Your task to perform on an android device: install app "Fetch Rewards" Image 0: 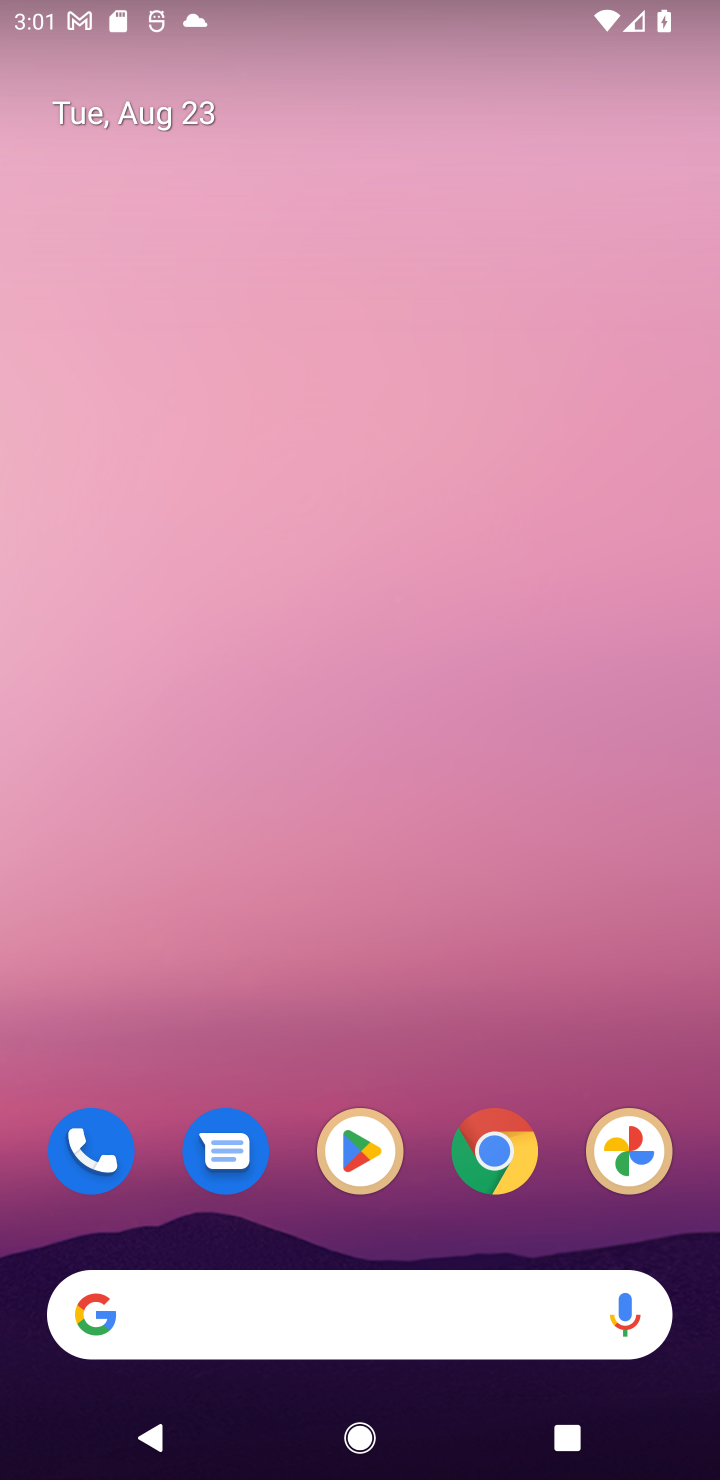
Step 0: click (362, 1149)
Your task to perform on an android device: install app "Fetch Rewards" Image 1: 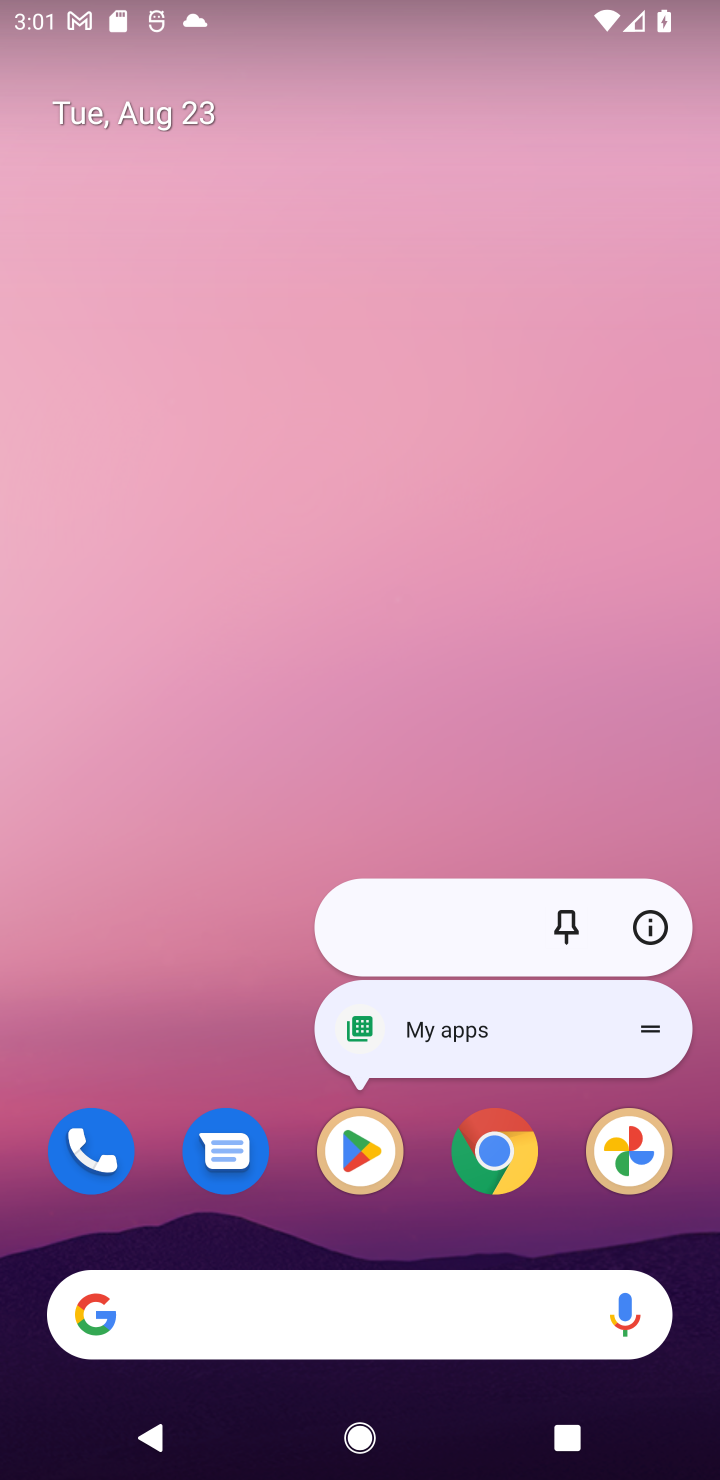
Step 1: click (362, 1149)
Your task to perform on an android device: install app "Fetch Rewards" Image 2: 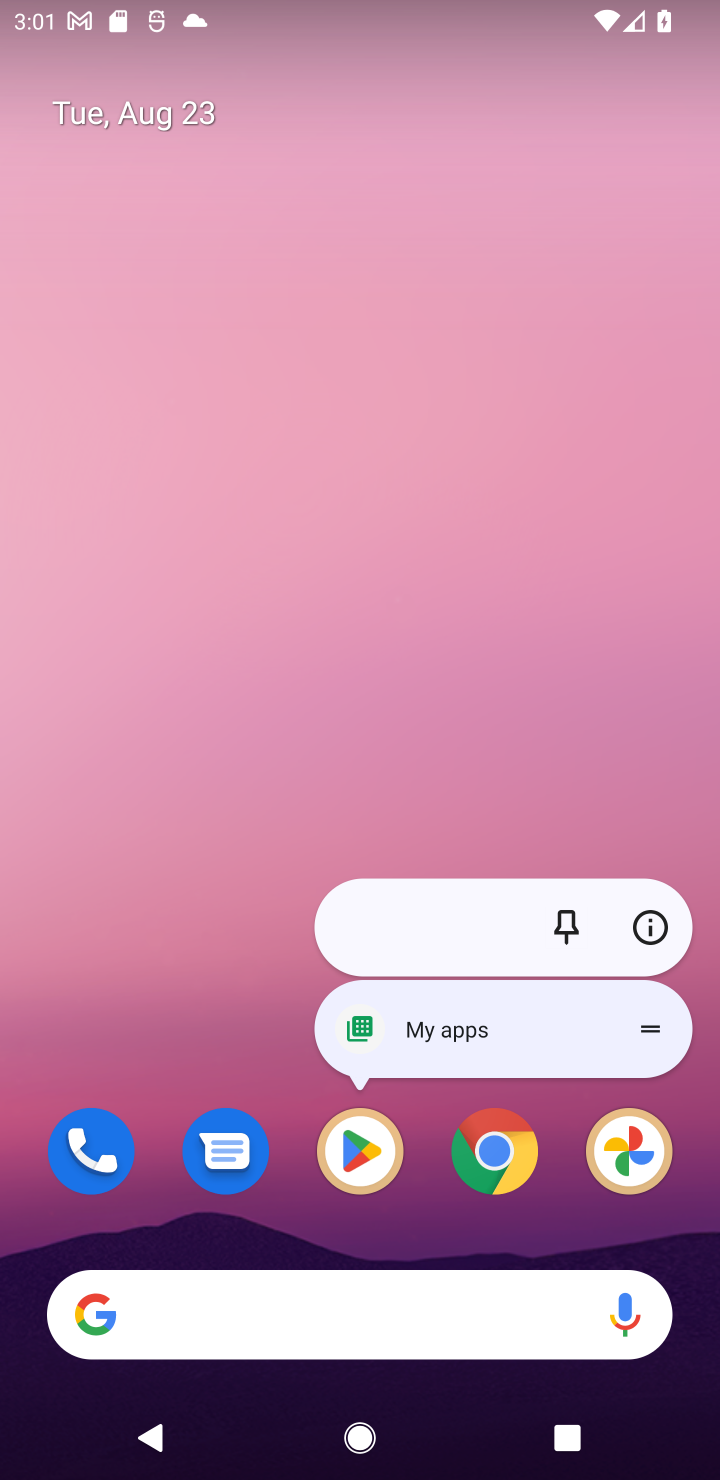
Step 2: click (362, 1149)
Your task to perform on an android device: install app "Fetch Rewards" Image 3: 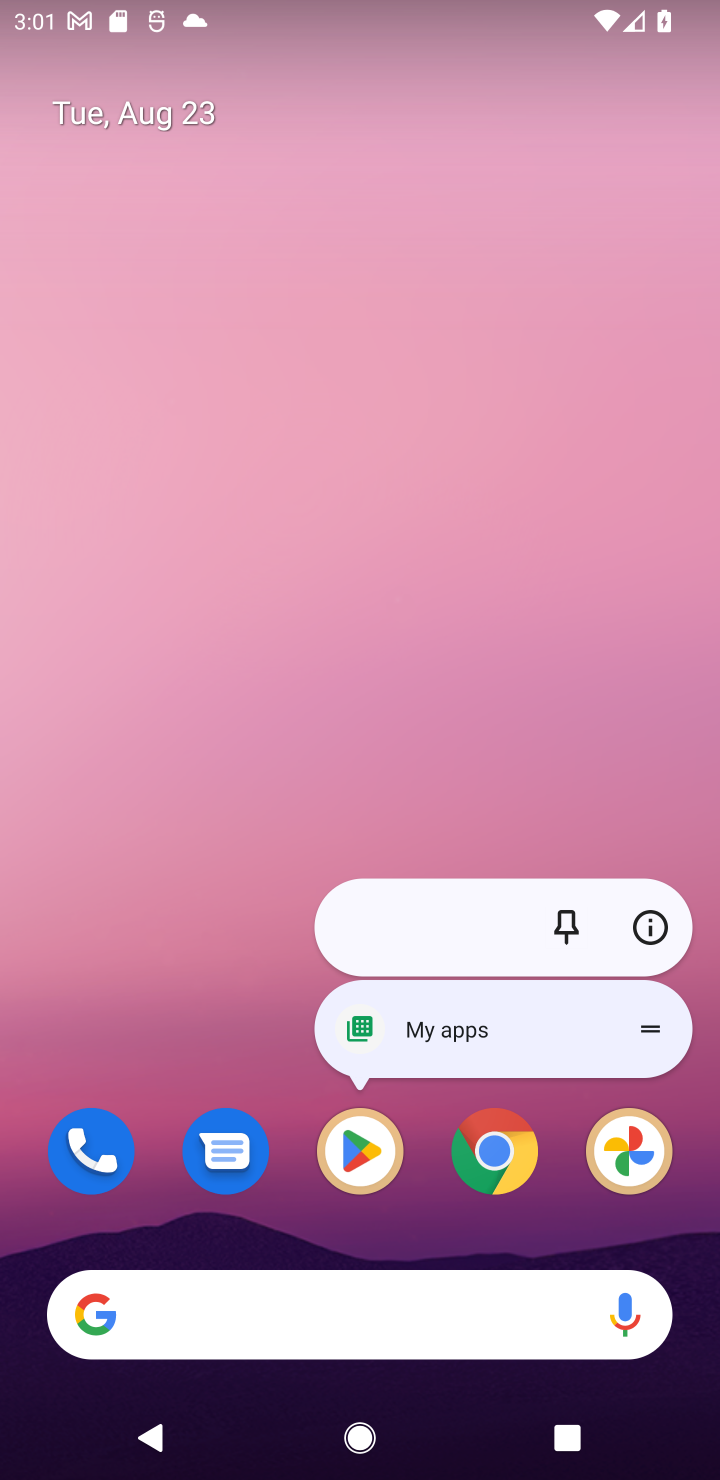
Step 3: click (362, 1153)
Your task to perform on an android device: install app "Fetch Rewards" Image 4: 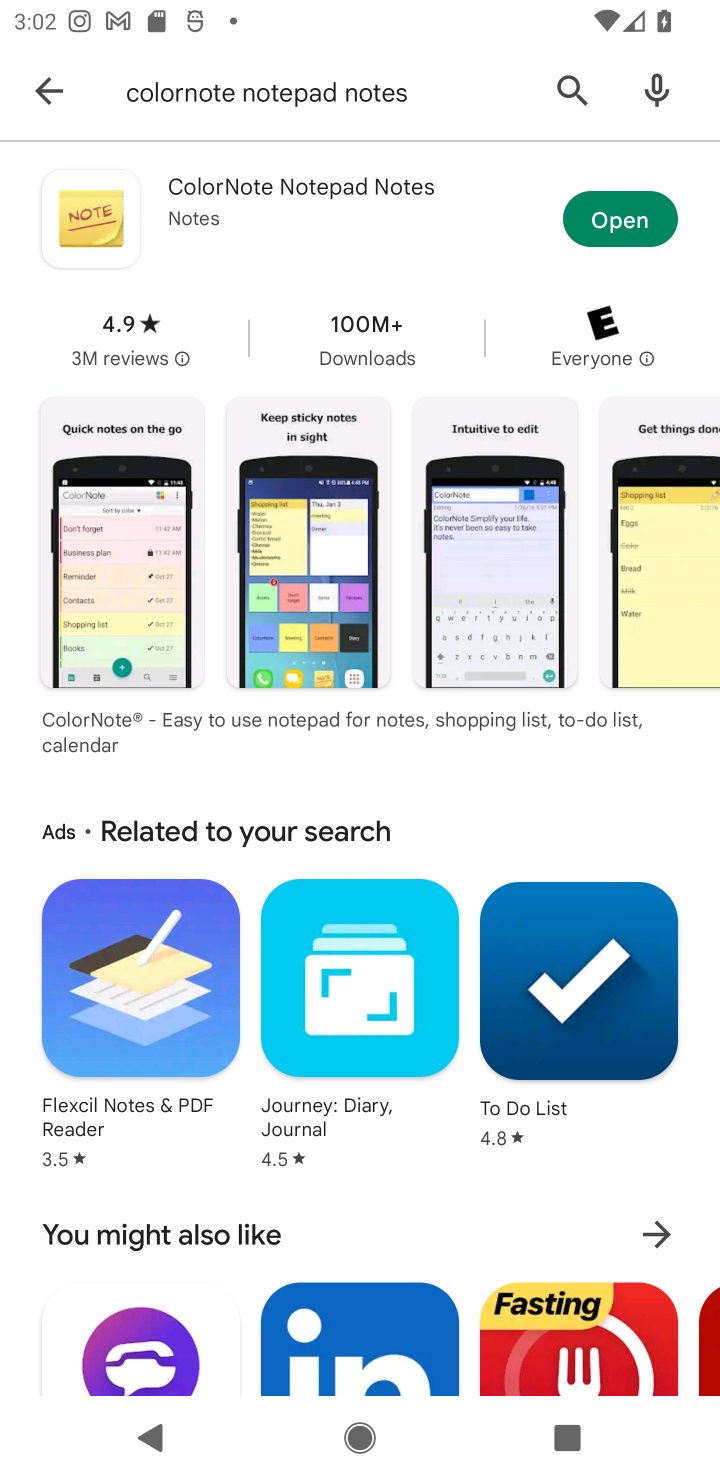
Step 4: click (566, 96)
Your task to perform on an android device: install app "Fetch Rewards" Image 5: 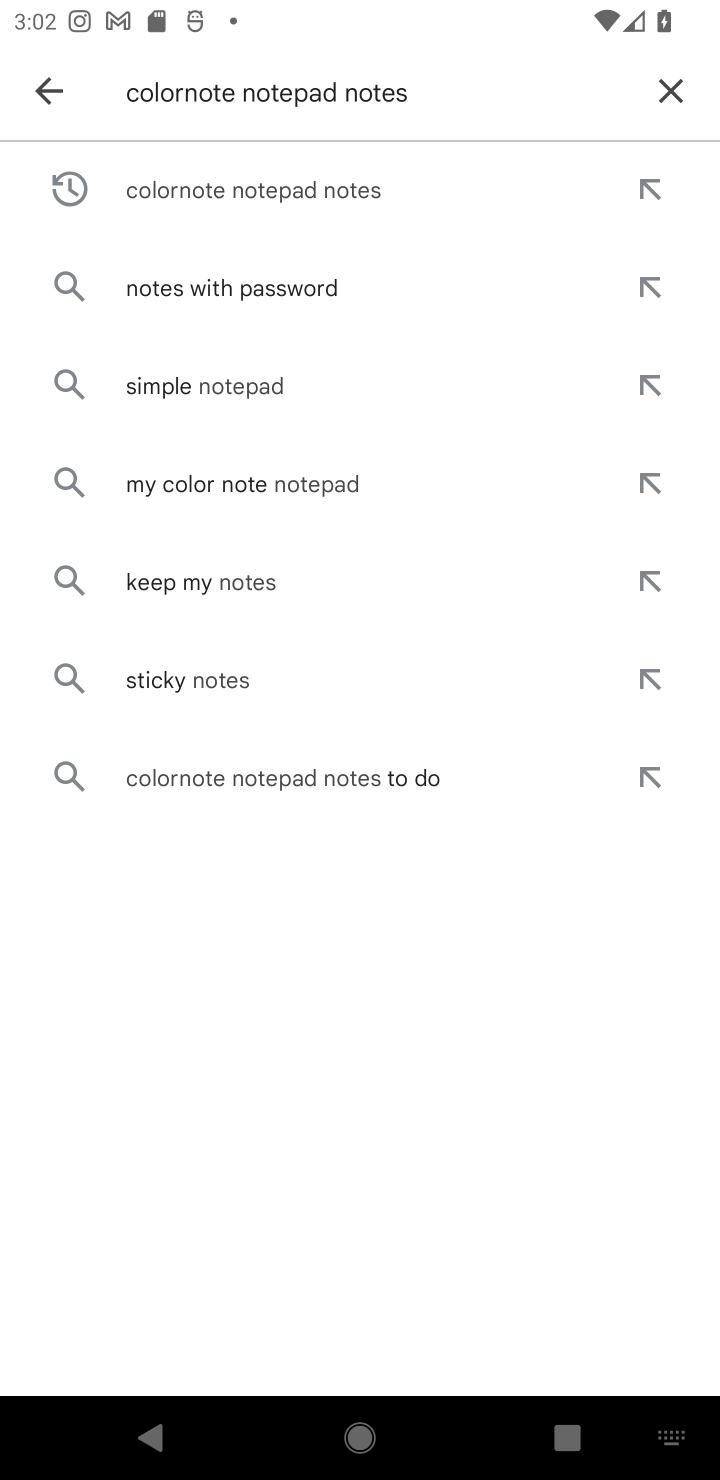
Step 5: click (672, 73)
Your task to perform on an android device: install app "Fetch Rewards" Image 6: 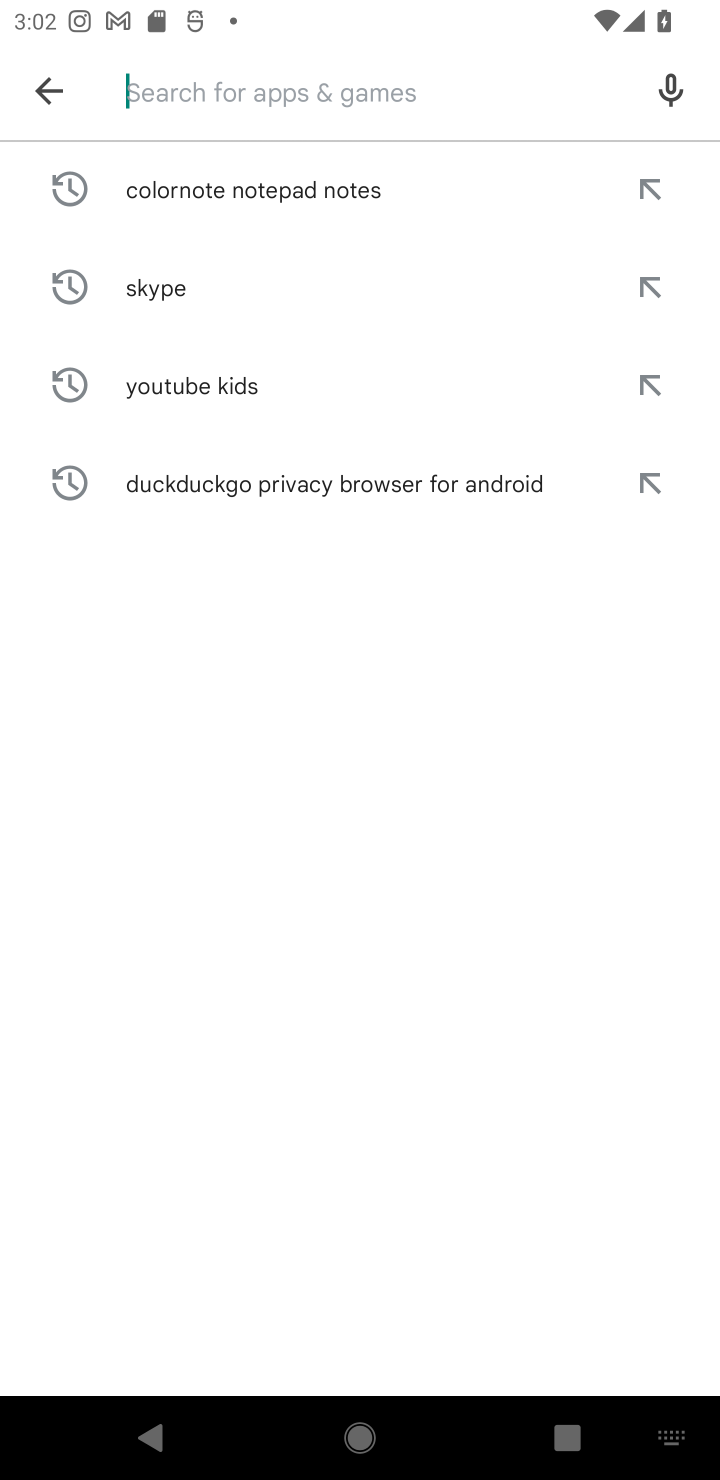
Step 6: type "Fetch Rewards"
Your task to perform on an android device: install app "Fetch Rewards" Image 7: 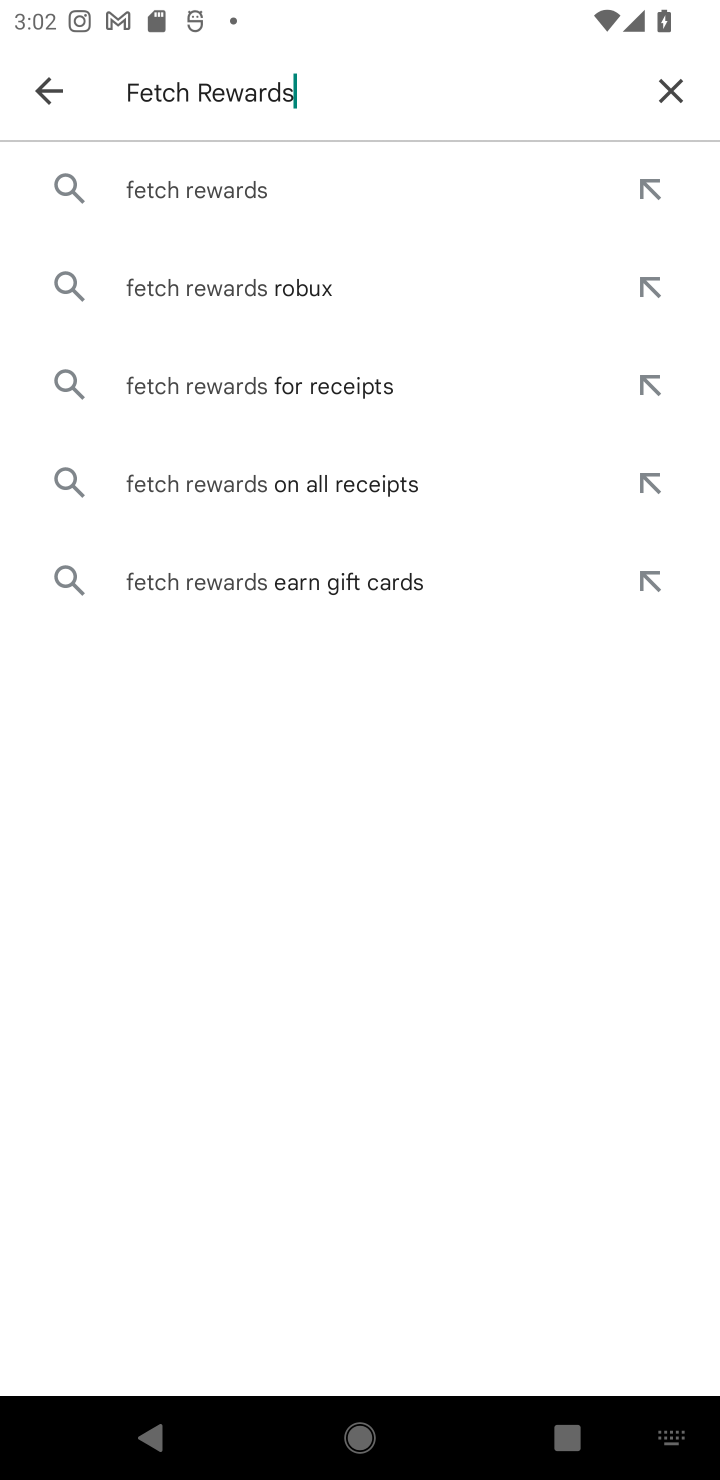
Step 7: click (143, 192)
Your task to perform on an android device: install app "Fetch Rewards" Image 8: 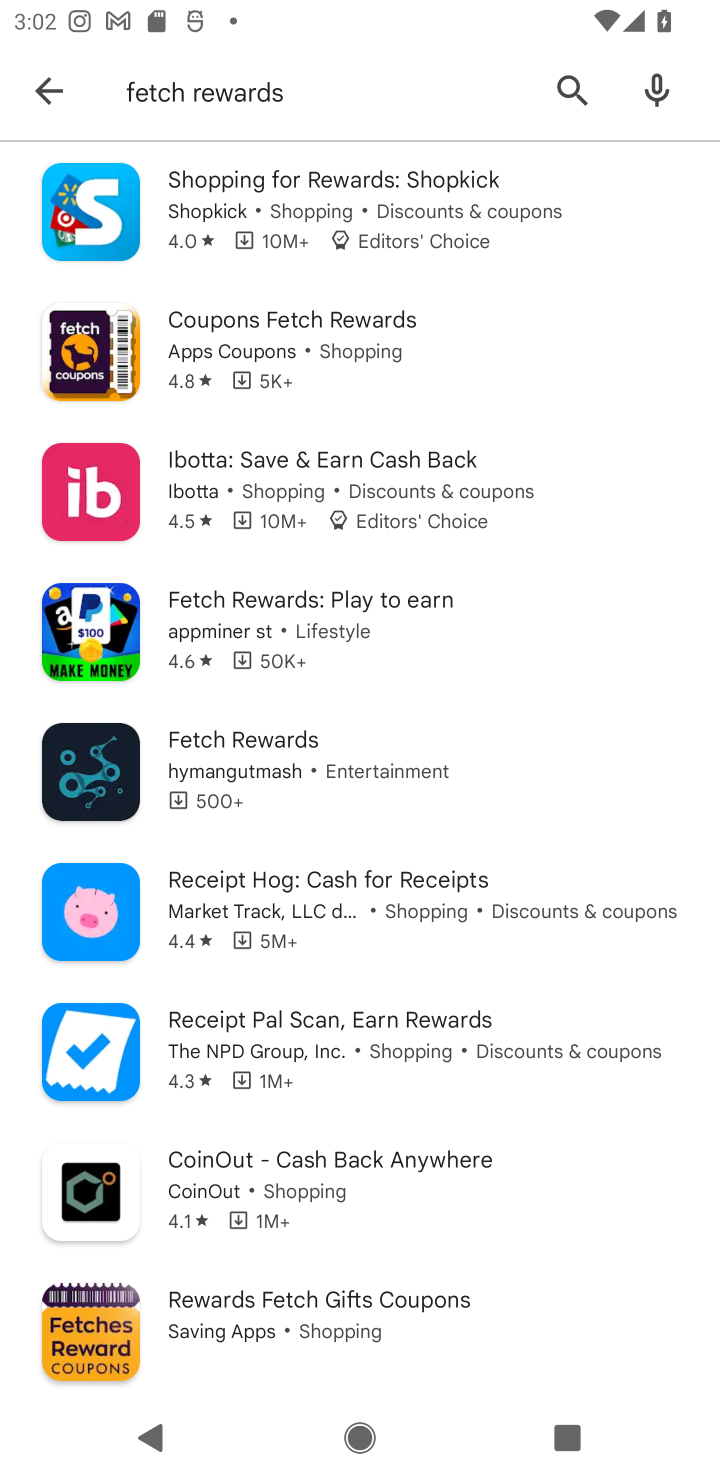
Step 8: click (263, 764)
Your task to perform on an android device: install app "Fetch Rewards" Image 9: 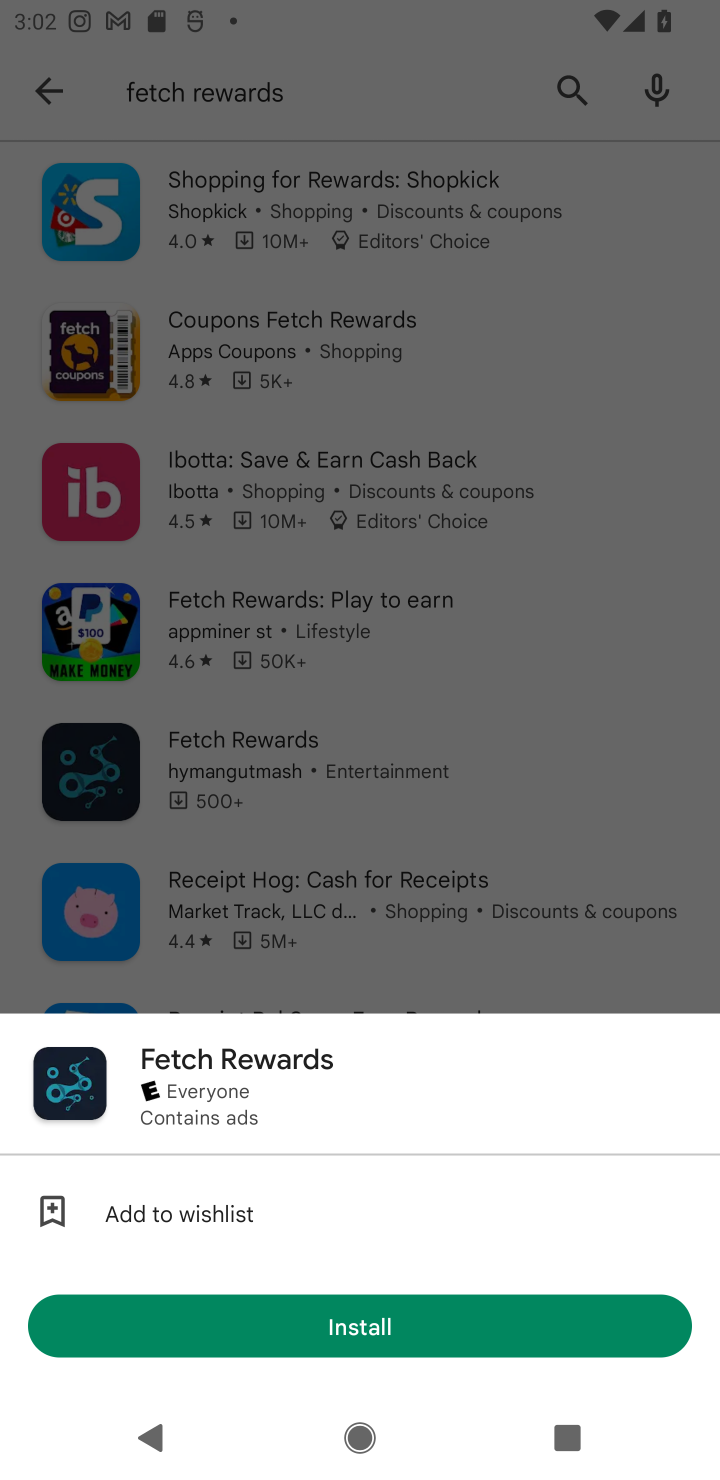
Step 9: click (369, 1335)
Your task to perform on an android device: install app "Fetch Rewards" Image 10: 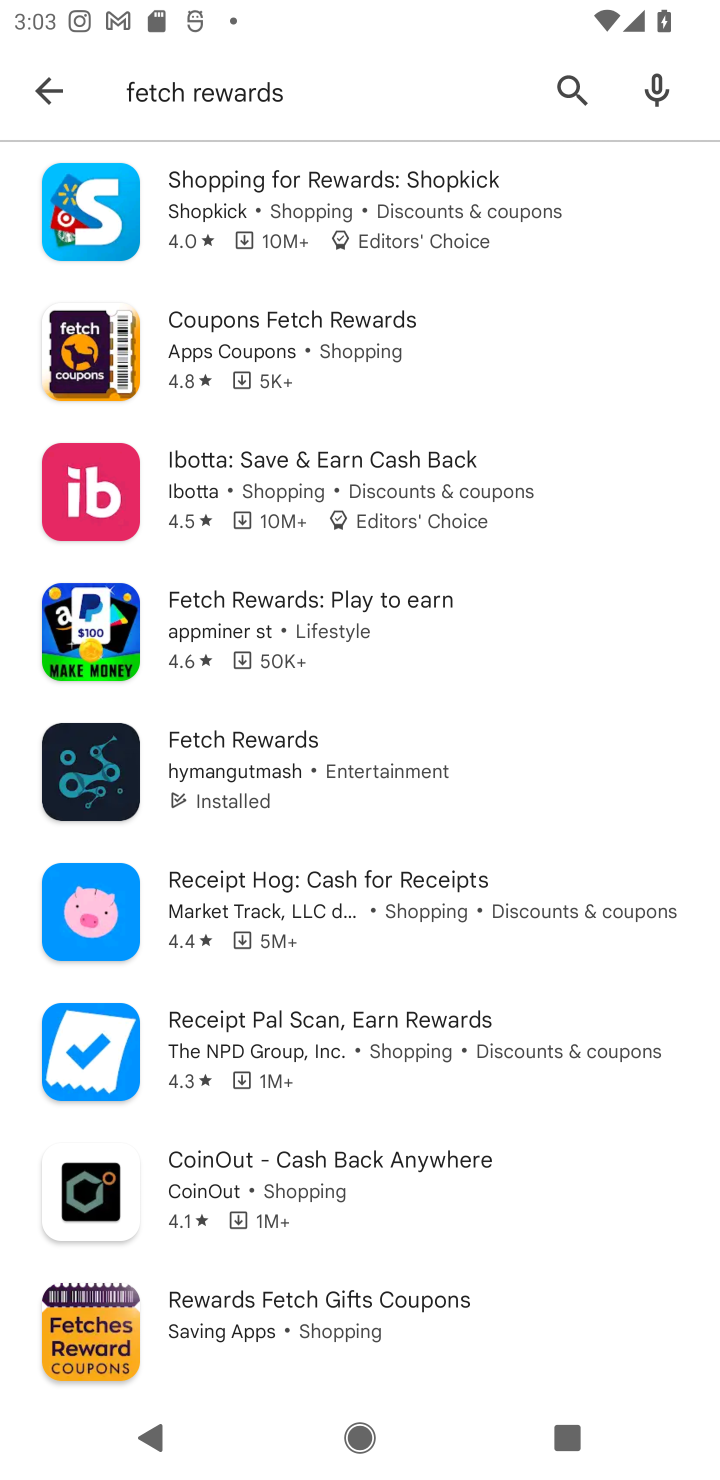
Step 10: task complete